Your task to perform on an android device: Open the Play Movies app and select the watchlist tab. Image 0: 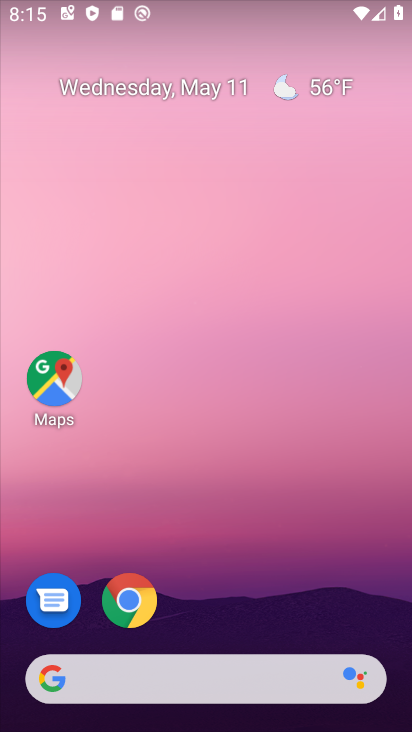
Step 0: drag from (214, 565) to (172, 137)
Your task to perform on an android device: Open the Play Movies app and select the watchlist tab. Image 1: 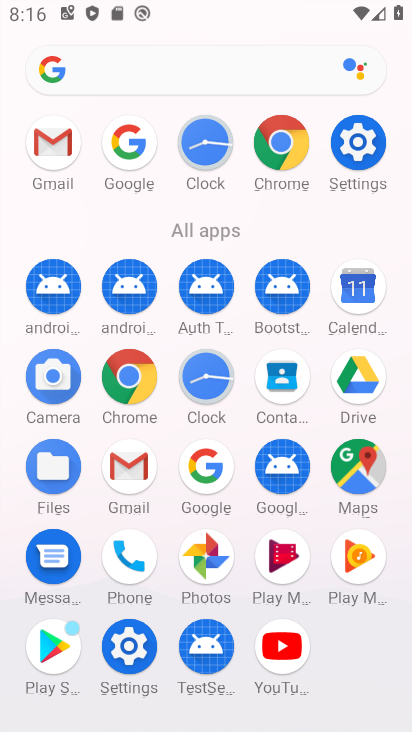
Step 1: click (285, 557)
Your task to perform on an android device: Open the Play Movies app and select the watchlist tab. Image 2: 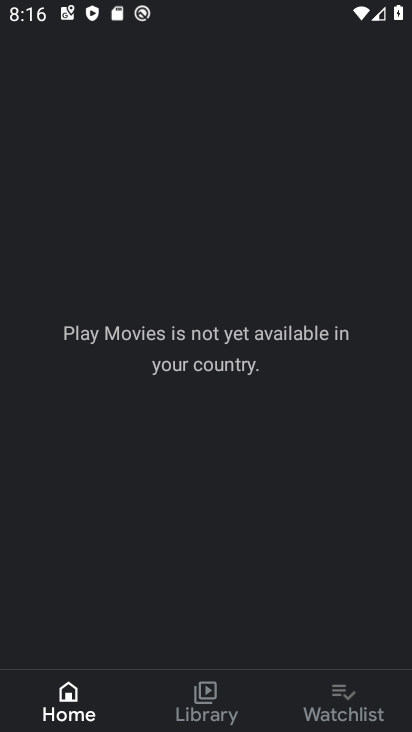
Step 2: click (340, 689)
Your task to perform on an android device: Open the Play Movies app and select the watchlist tab. Image 3: 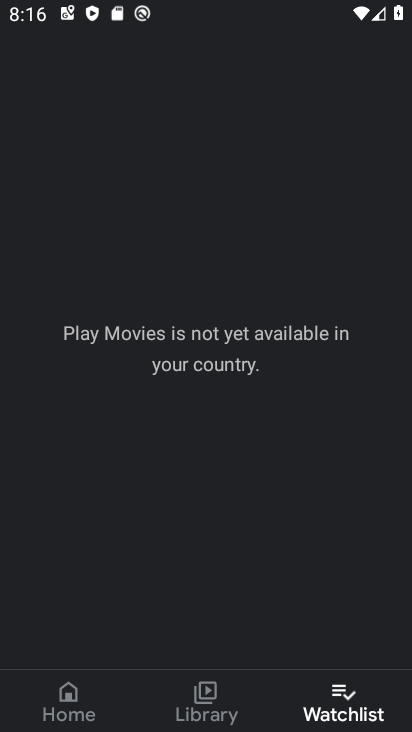
Step 3: task complete